Your task to perform on an android device: turn off improve location accuracy Image 0: 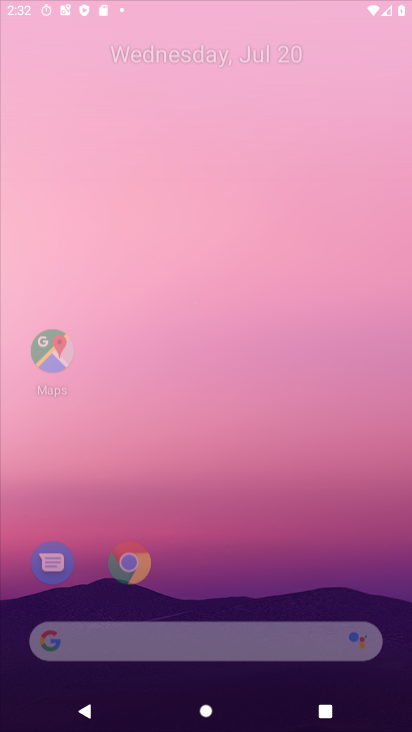
Step 0: drag from (234, 455) to (206, 0)
Your task to perform on an android device: turn off improve location accuracy Image 1: 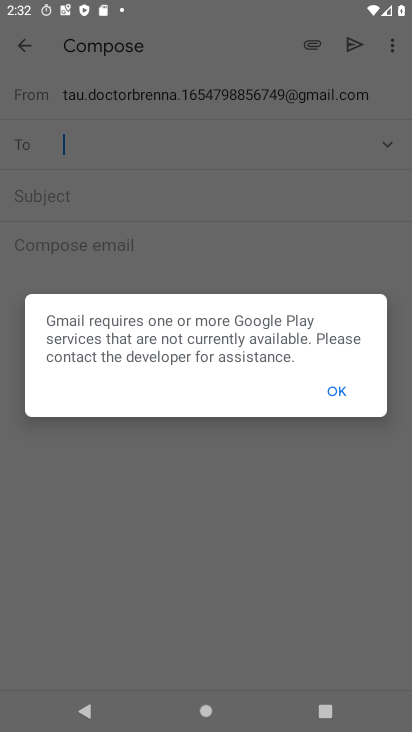
Step 1: press home button
Your task to perform on an android device: turn off improve location accuracy Image 2: 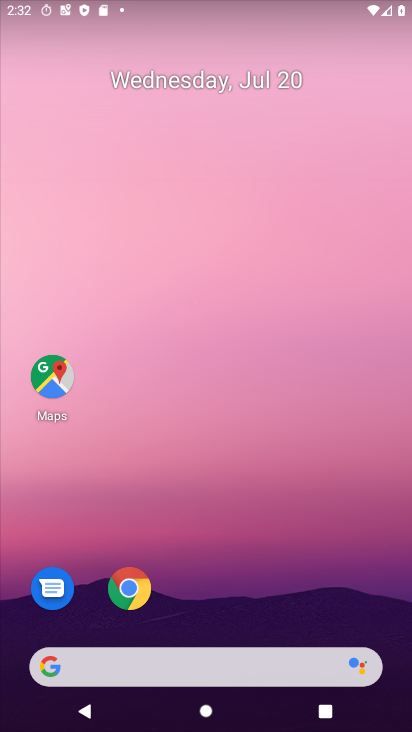
Step 2: click (300, 547)
Your task to perform on an android device: turn off improve location accuracy Image 3: 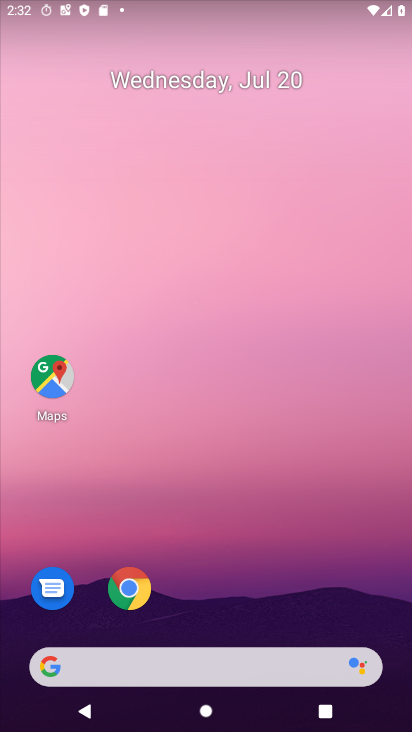
Step 3: drag from (293, 520) to (329, 187)
Your task to perform on an android device: turn off improve location accuracy Image 4: 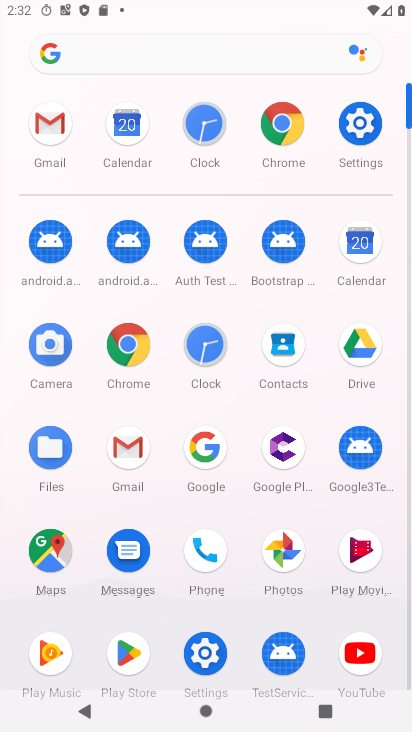
Step 4: click (357, 127)
Your task to perform on an android device: turn off improve location accuracy Image 5: 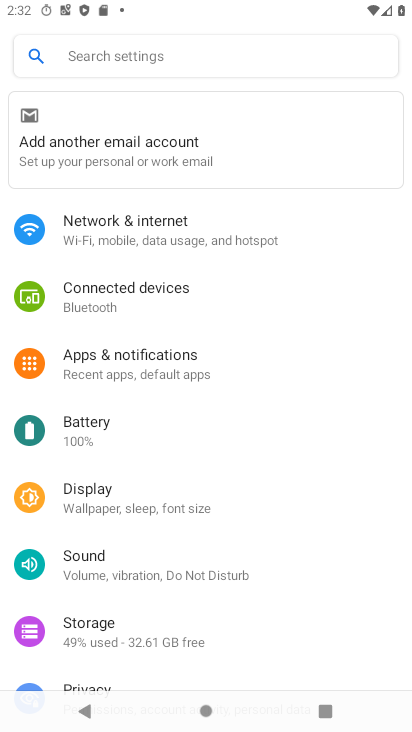
Step 5: drag from (148, 585) to (169, 198)
Your task to perform on an android device: turn off improve location accuracy Image 6: 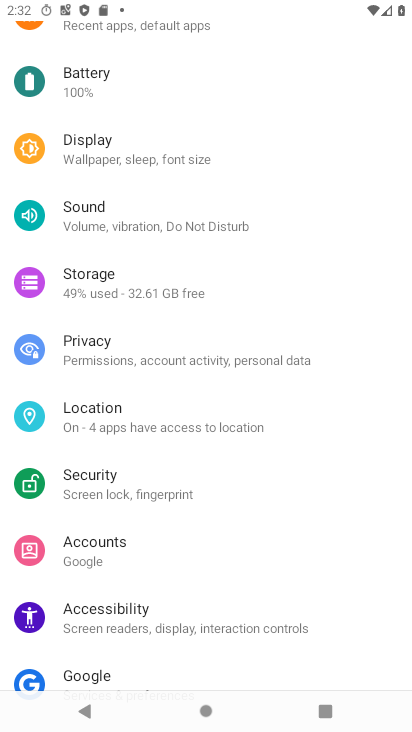
Step 6: click (136, 418)
Your task to perform on an android device: turn off improve location accuracy Image 7: 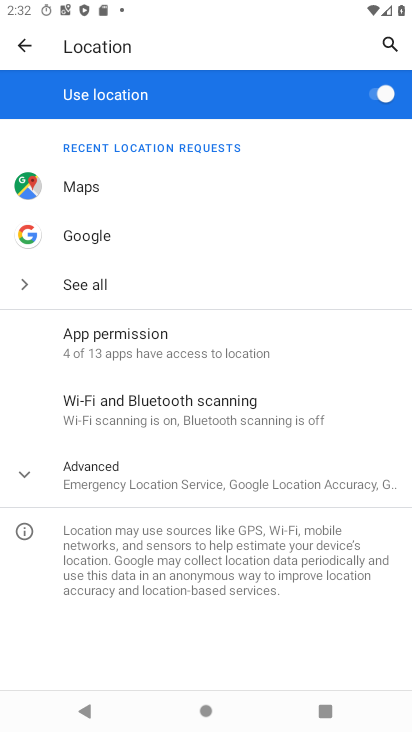
Step 7: click (161, 485)
Your task to perform on an android device: turn off improve location accuracy Image 8: 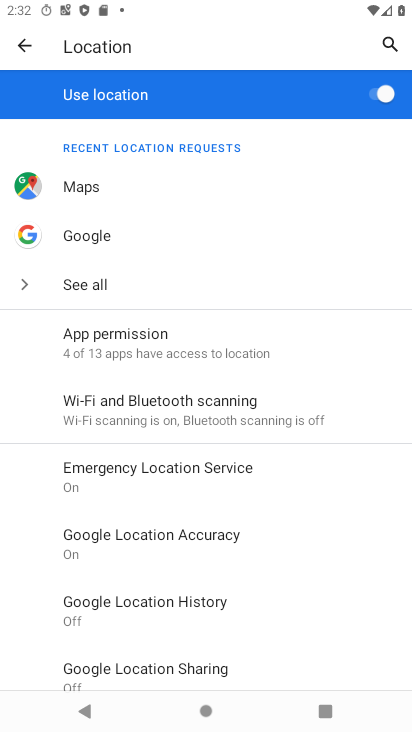
Step 8: click (193, 536)
Your task to perform on an android device: turn off improve location accuracy Image 9: 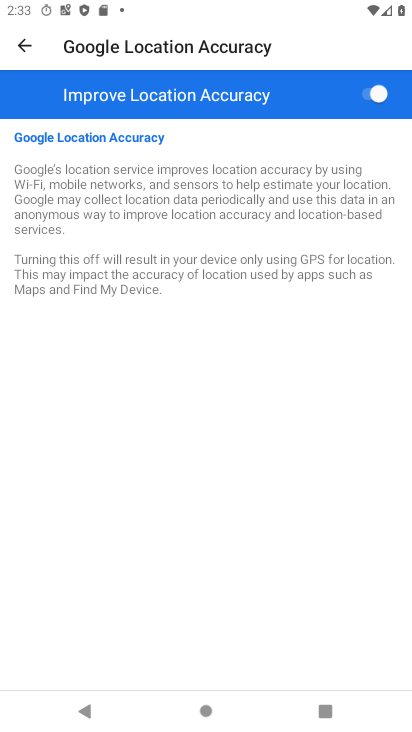
Step 9: click (369, 93)
Your task to perform on an android device: turn off improve location accuracy Image 10: 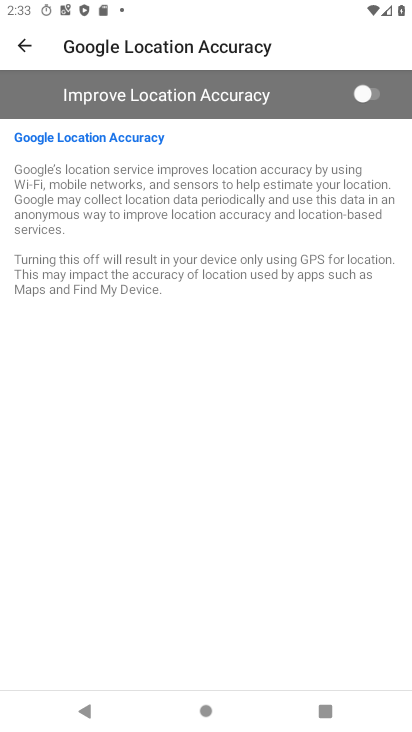
Step 10: task complete